Your task to perform on an android device: choose inbox layout in the gmail app Image 0: 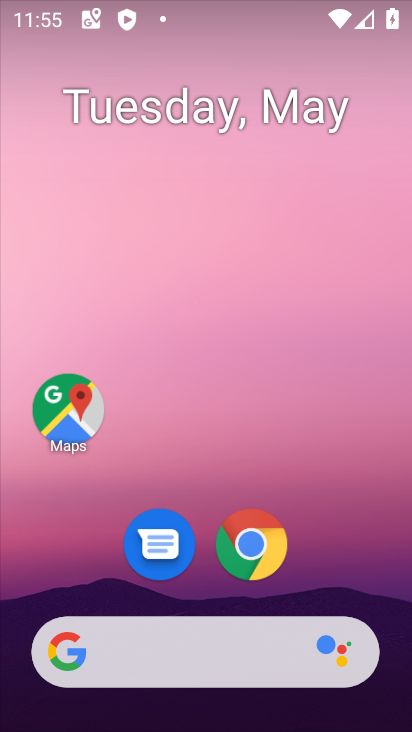
Step 0: drag from (374, 690) to (193, 121)
Your task to perform on an android device: choose inbox layout in the gmail app Image 1: 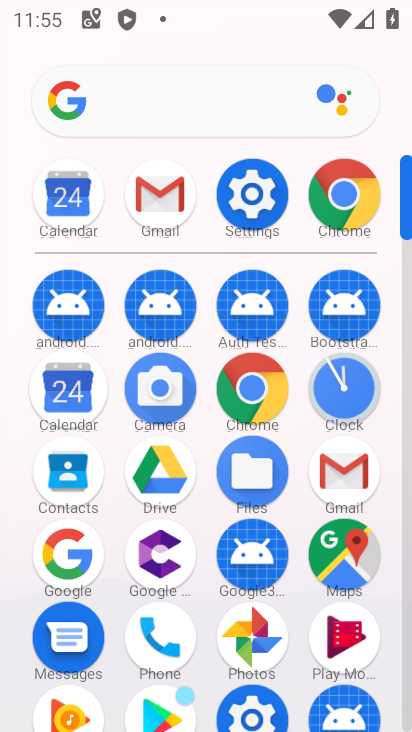
Step 1: click (336, 474)
Your task to perform on an android device: choose inbox layout in the gmail app Image 2: 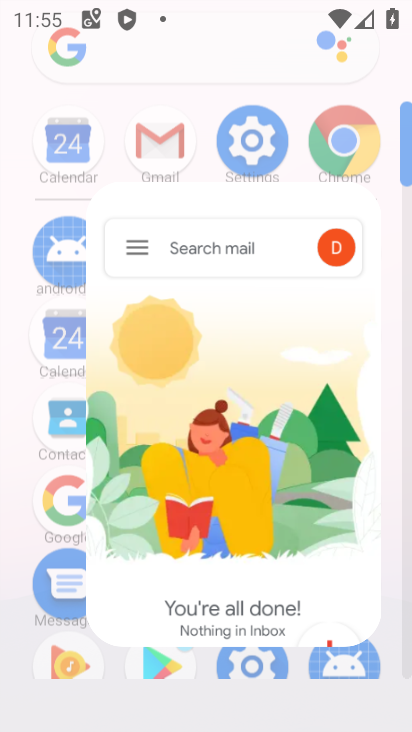
Step 2: click (340, 468)
Your task to perform on an android device: choose inbox layout in the gmail app Image 3: 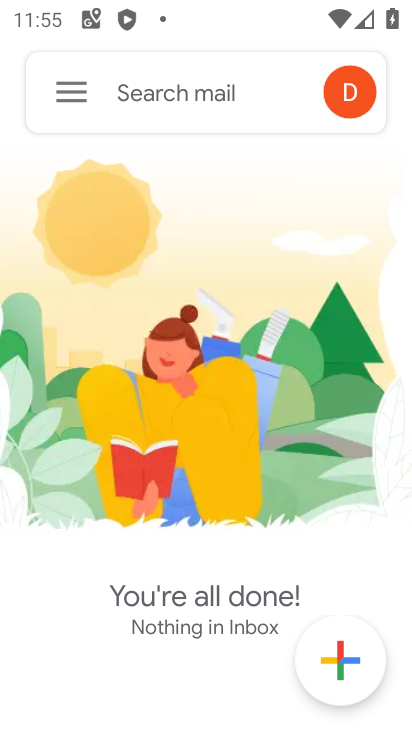
Step 3: click (343, 468)
Your task to perform on an android device: choose inbox layout in the gmail app Image 4: 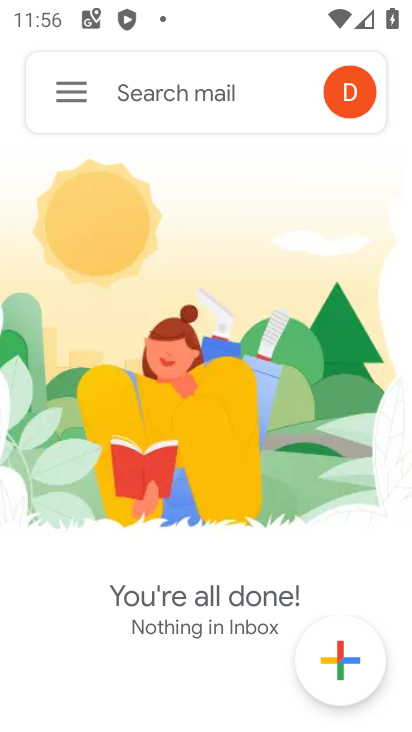
Step 4: click (89, 94)
Your task to perform on an android device: choose inbox layout in the gmail app Image 5: 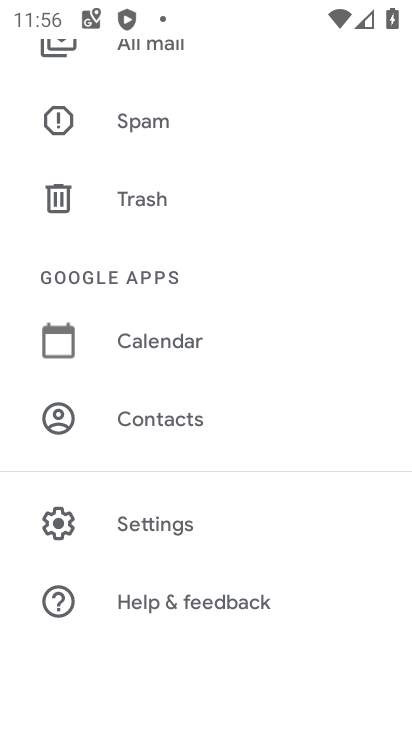
Step 5: drag from (181, 152) to (184, 529)
Your task to perform on an android device: choose inbox layout in the gmail app Image 6: 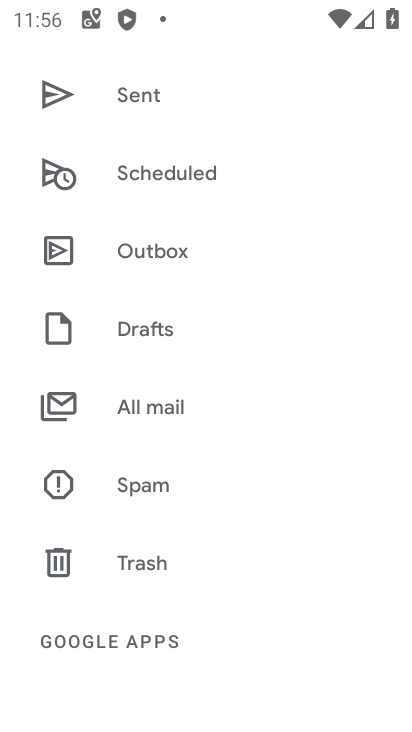
Step 6: click (94, 407)
Your task to perform on an android device: choose inbox layout in the gmail app Image 7: 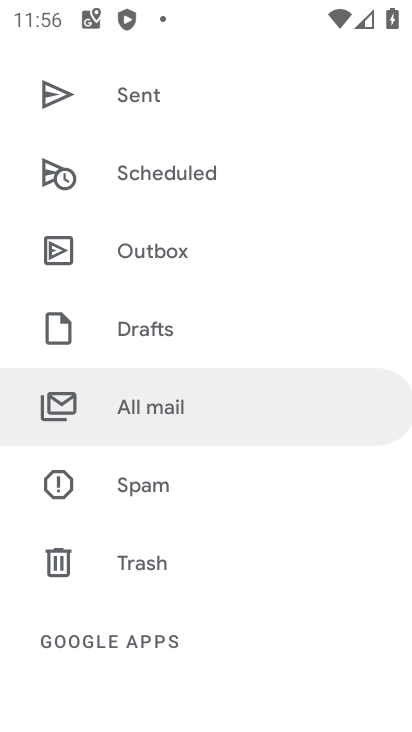
Step 7: click (109, 409)
Your task to perform on an android device: choose inbox layout in the gmail app Image 8: 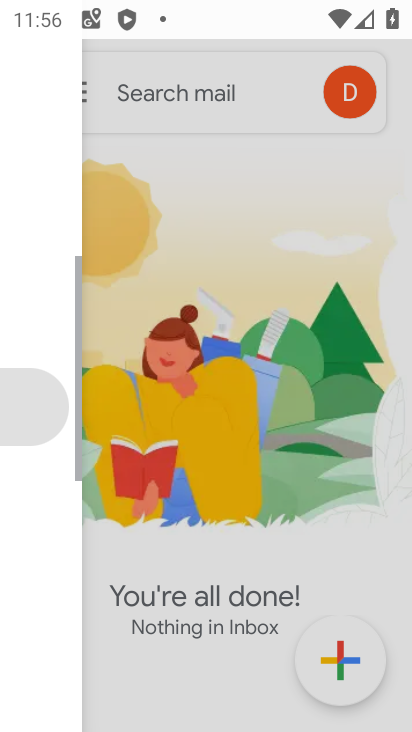
Step 8: click (110, 409)
Your task to perform on an android device: choose inbox layout in the gmail app Image 9: 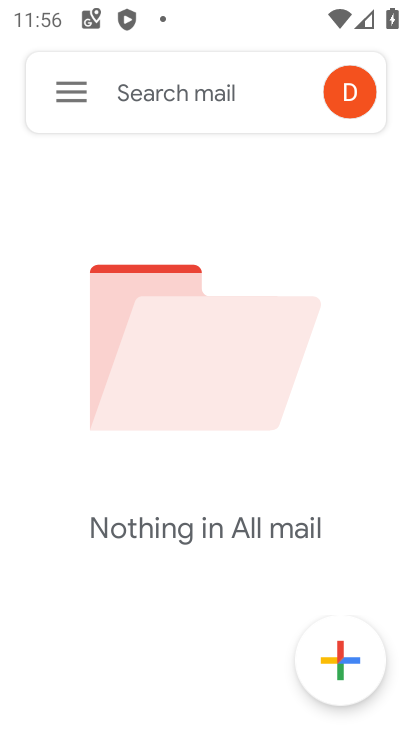
Step 9: task complete